Your task to perform on an android device: Open the map Image 0: 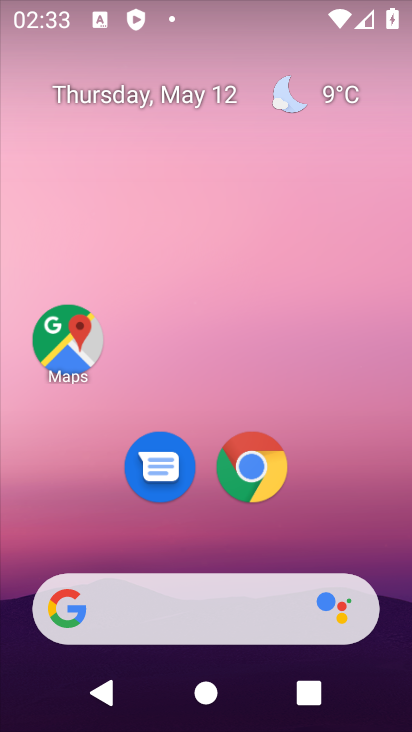
Step 0: drag from (321, 501) to (321, 183)
Your task to perform on an android device: Open the map Image 1: 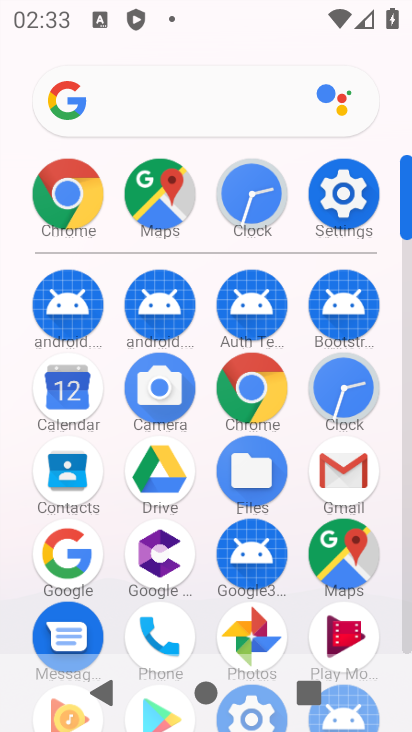
Step 1: click (345, 545)
Your task to perform on an android device: Open the map Image 2: 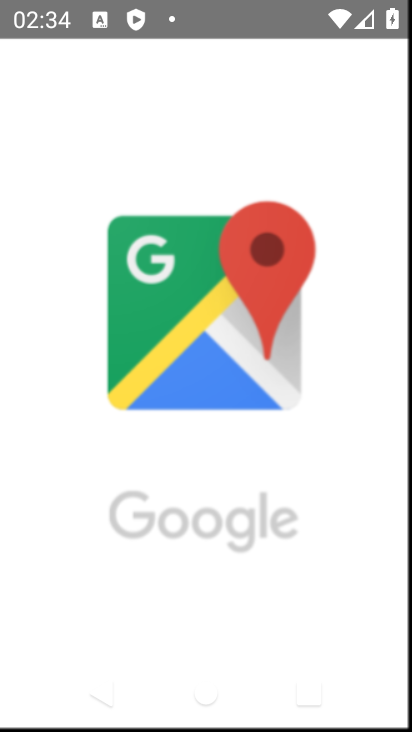
Step 2: task complete